Your task to perform on an android device: Go to notification settings Image 0: 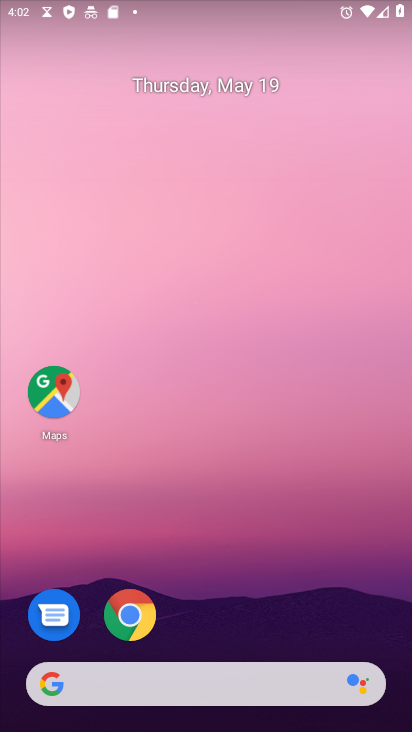
Step 0: drag from (370, 693) to (207, 153)
Your task to perform on an android device: Go to notification settings Image 1: 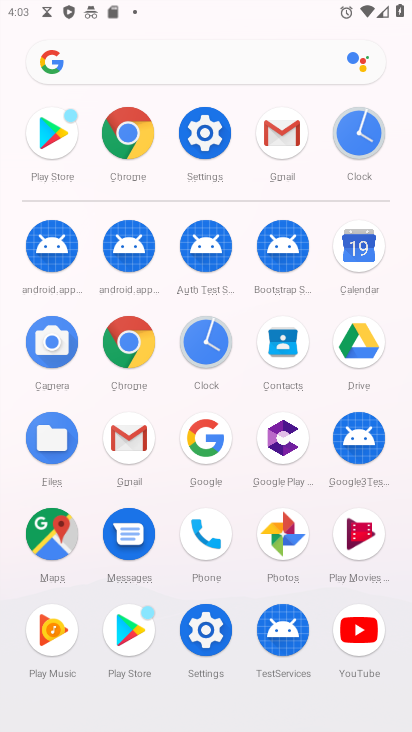
Step 1: click (201, 116)
Your task to perform on an android device: Go to notification settings Image 2: 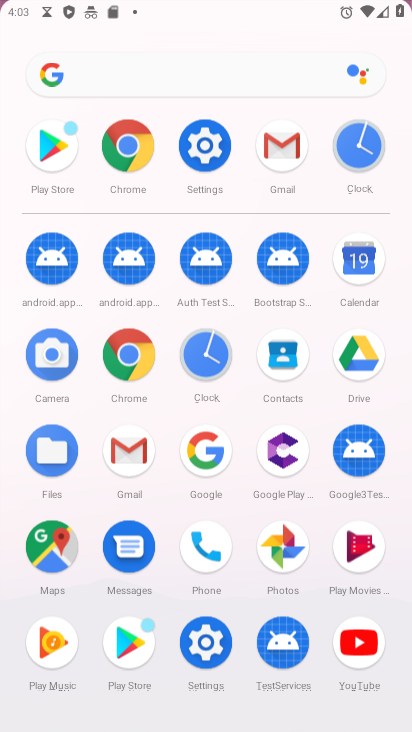
Step 2: click (210, 138)
Your task to perform on an android device: Go to notification settings Image 3: 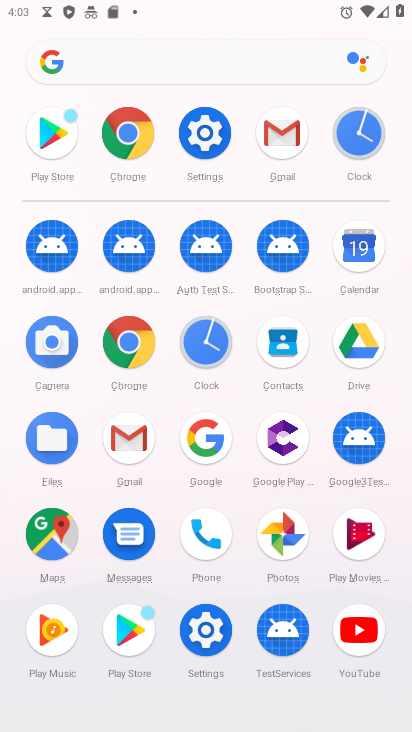
Step 3: click (210, 138)
Your task to perform on an android device: Go to notification settings Image 4: 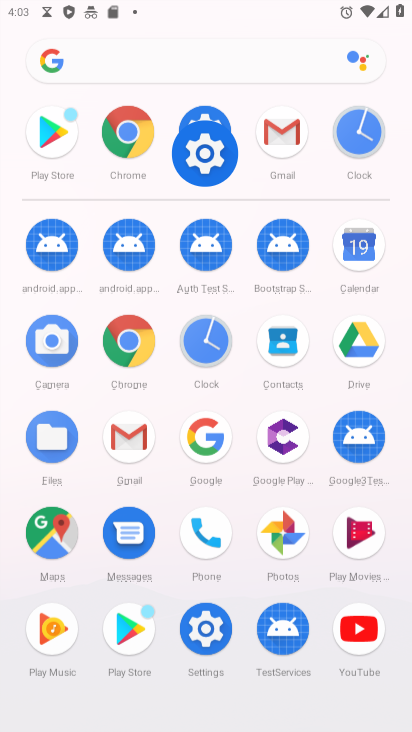
Step 4: click (210, 138)
Your task to perform on an android device: Go to notification settings Image 5: 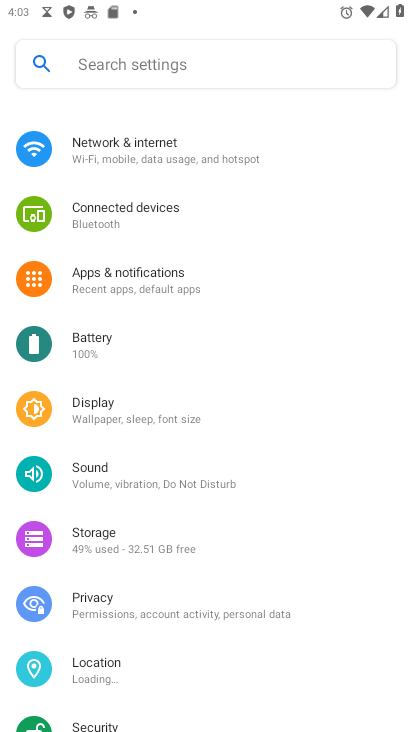
Step 5: click (210, 138)
Your task to perform on an android device: Go to notification settings Image 6: 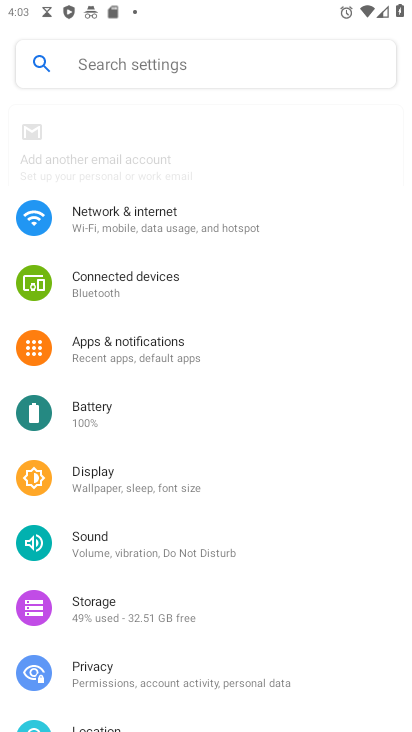
Step 6: click (210, 138)
Your task to perform on an android device: Go to notification settings Image 7: 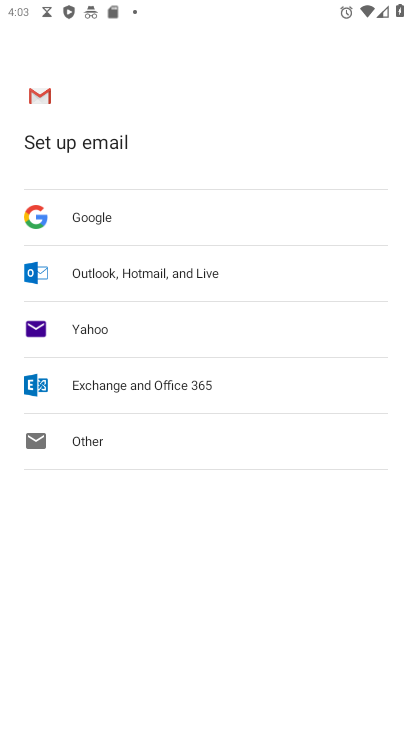
Step 7: press back button
Your task to perform on an android device: Go to notification settings Image 8: 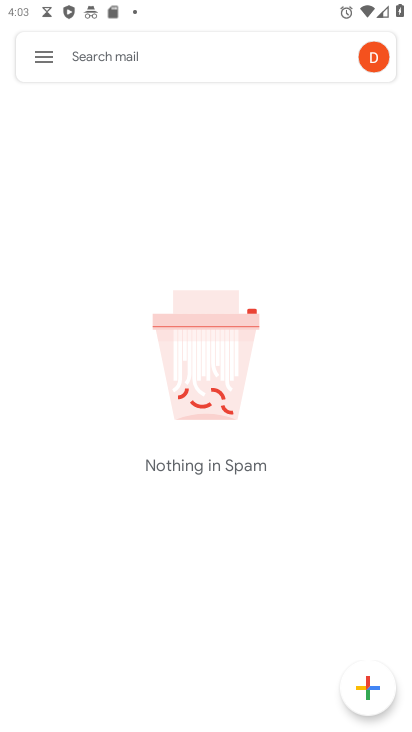
Step 8: press home button
Your task to perform on an android device: Go to notification settings Image 9: 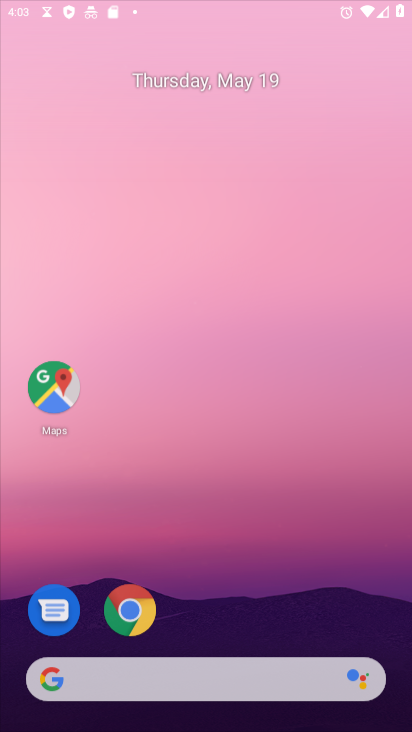
Step 9: press back button
Your task to perform on an android device: Go to notification settings Image 10: 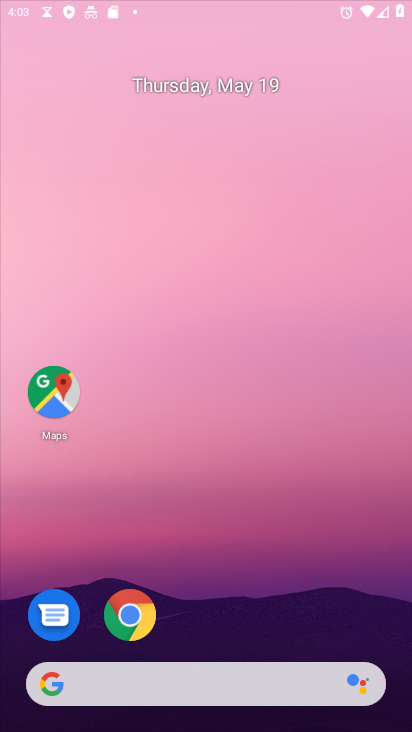
Step 10: press back button
Your task to perform on an android device: Go to notification settings Image 11: 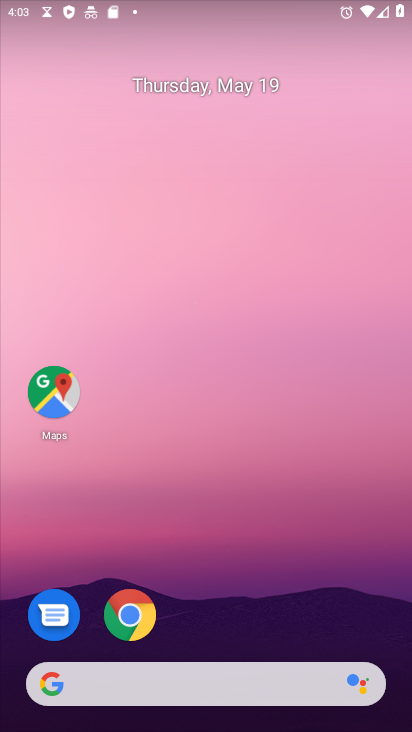
Step 11: drag from (258, 647) to (110, 160)
Your task to perform on an android device: Go to notification settings Image 12: 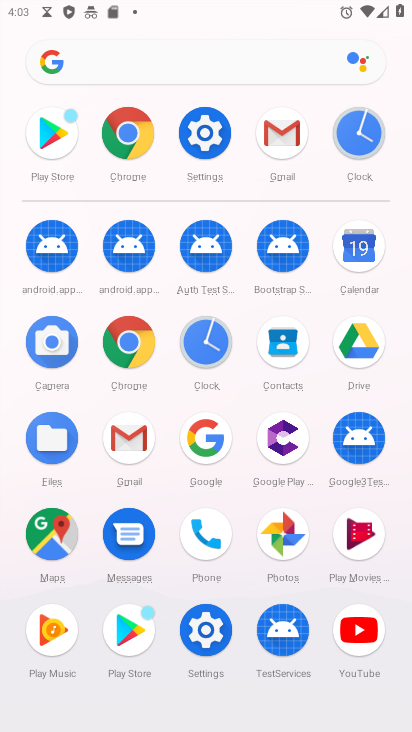
Step 12: click (210, 135)
Your task to perform on an android device: Go to notification settings Image 13: 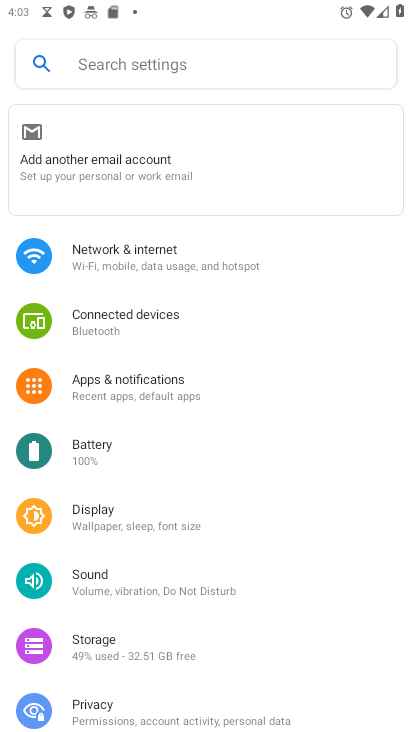
Step 13: click (113, 368)
Your task to perform on an android device: Go to notification settings Image 14: 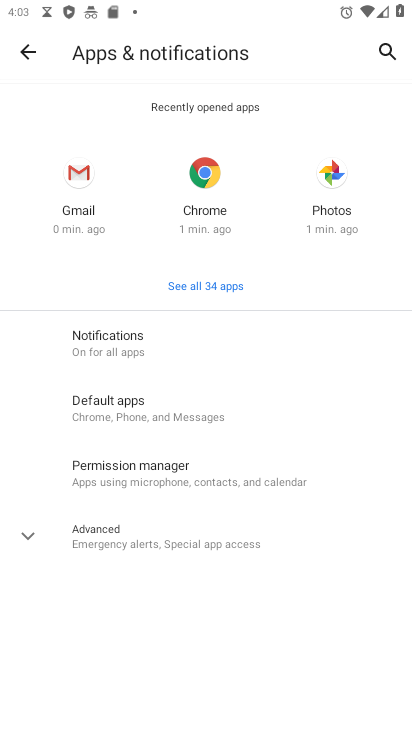
Step 14: click (108, 350)
Your task to perform on an android device: Go to notification settings Image 15: 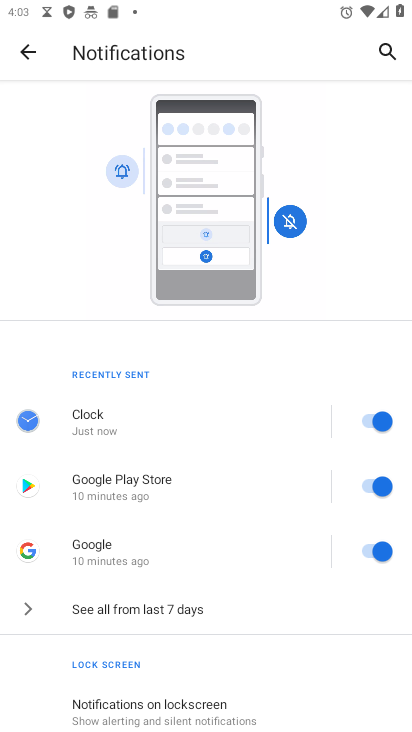
Step 15: drag from (137, 579) to (137, 259)
Your task to perform on an android device: Go to notification settings Image 16: 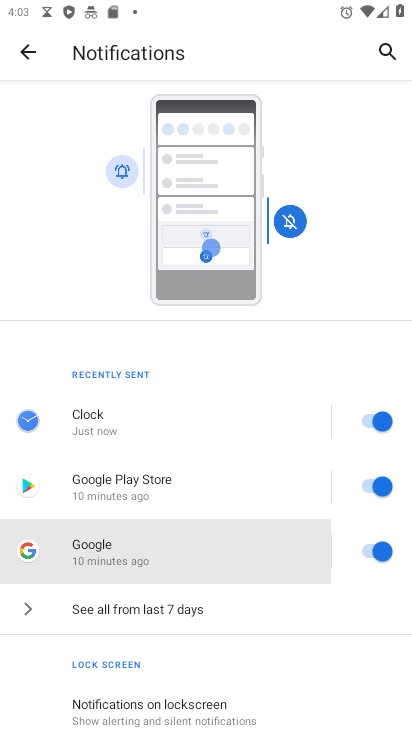
Step 16: drag from (230, 507) to (171, 159)
Your task to perform on an android device: Go to notification settings Image 17: 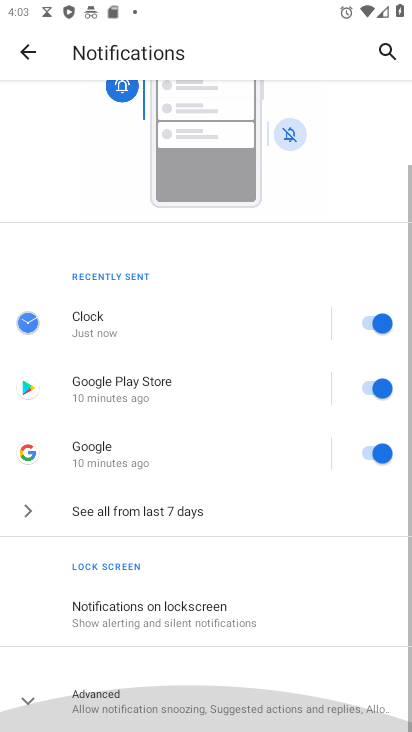
Step 17: click (263, 105)
Your task to perform on an android device: Go to notification settings Image 18: 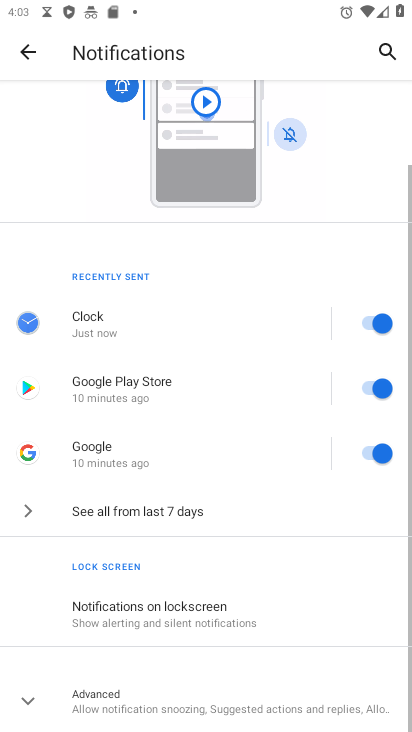
Step 18: click (108, 607)
Your task to perform on an android device: Go to notification settings Image 19: 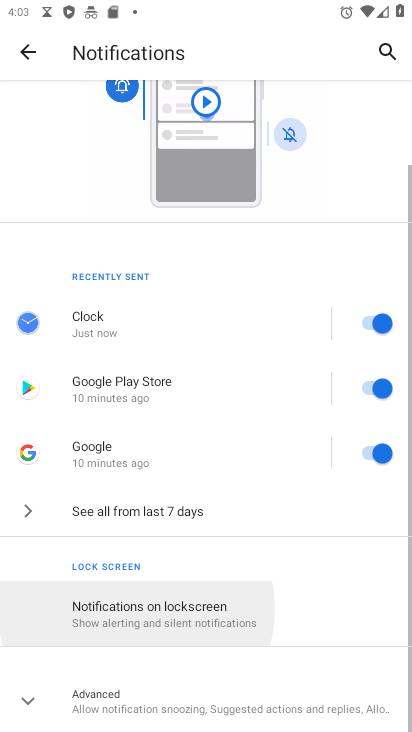
Step 19: click (109, 607)
Your task to perform on an android device: Go to notification settings Image 20: 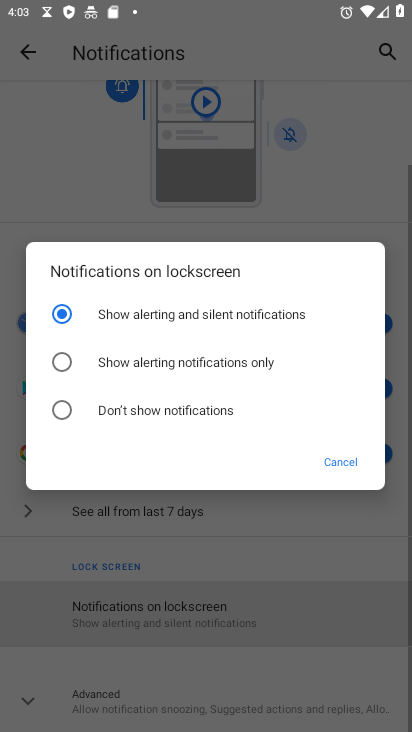
Step 20: click (113, 607)
Your task to perform on an android device: Go to notification settings Image 21: 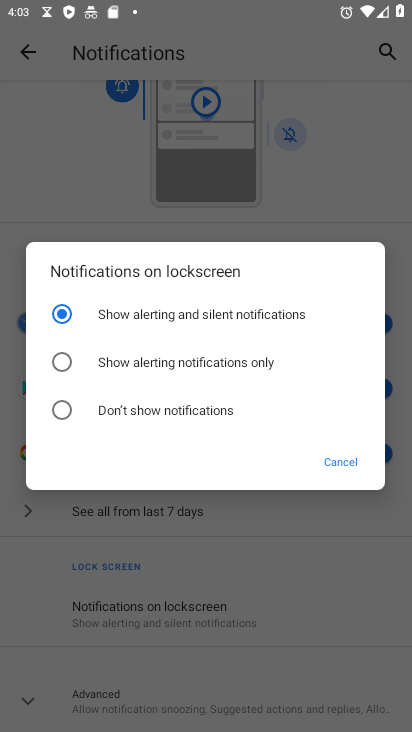
Step 21: click (362, 453)
Your task to perform on an android device: Go to notification settings Image 22: 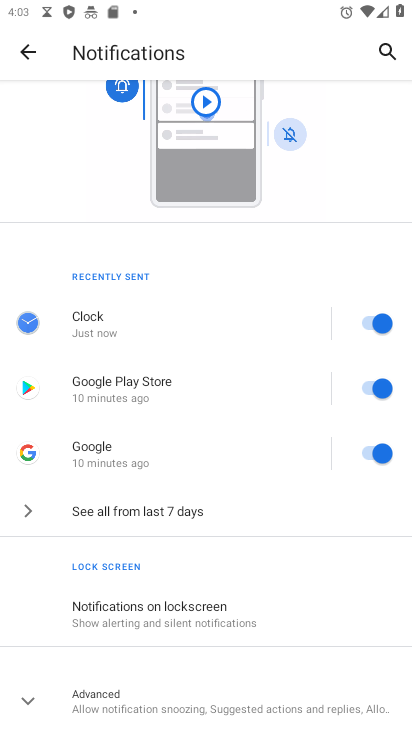
Step 22: task complete